Your task to perform on an android device: Go to settings Image 0: 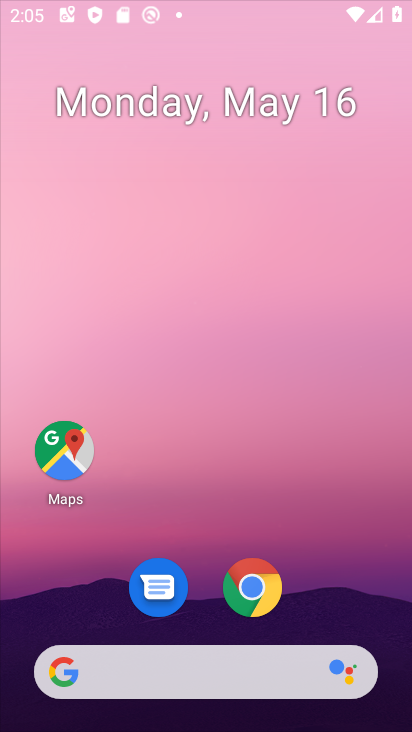
Step 0: drag from (278, 527) to (130, 151)
Your task to perform on an android device: Go to settings Image 1: 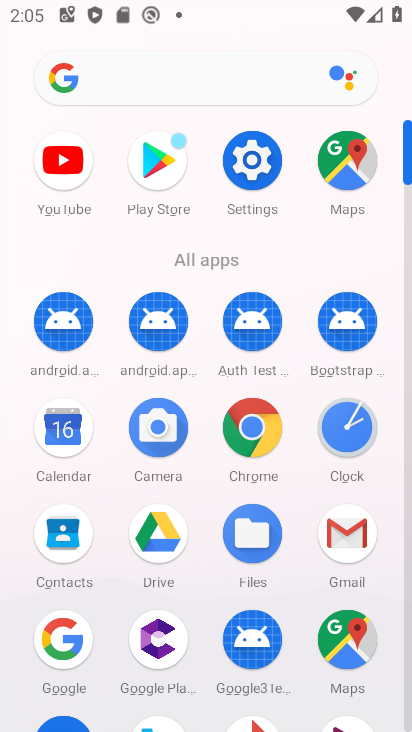
Step 1: click (255, 172)
Your task to perform on an android device: Go to settings Image 2: 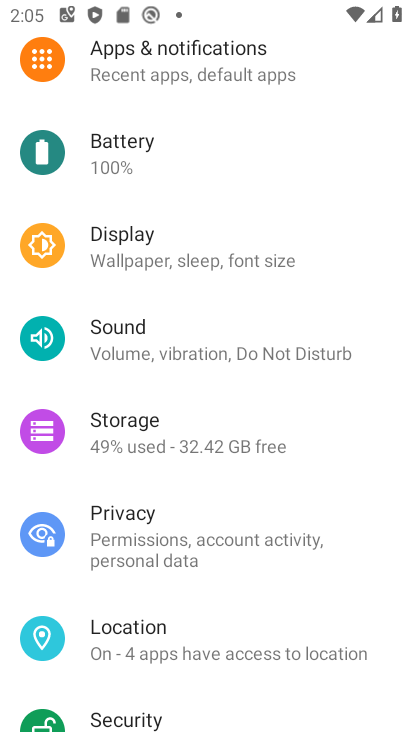
Step 2: drag from (187, 374) to (216, 422)
Your task to perform on an android device: Go to settings Image 3: 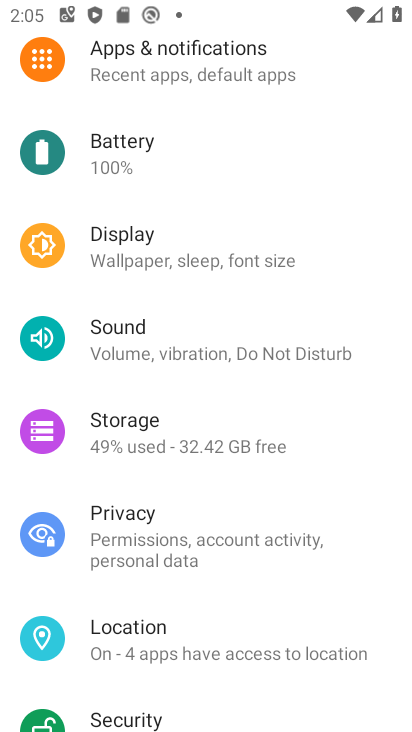
Step 3: drag from (131, 175) to (137, 516)
Your task to perform on an android device: Go to settings Image 4: 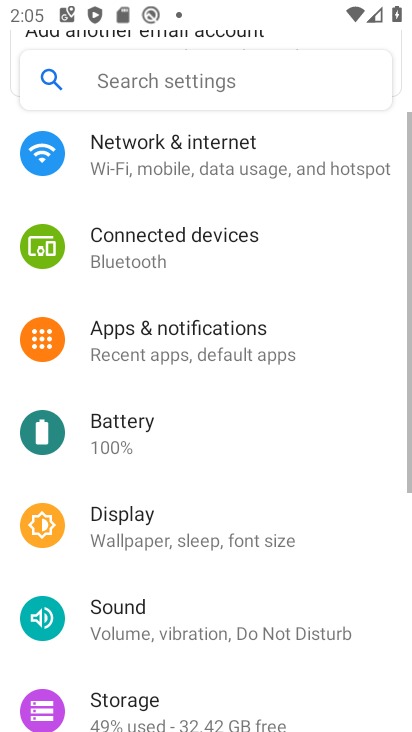
Step 4: drag from (140, 268) to (145, 543)
Your task to perform on an android device: Go to settings Image 5: 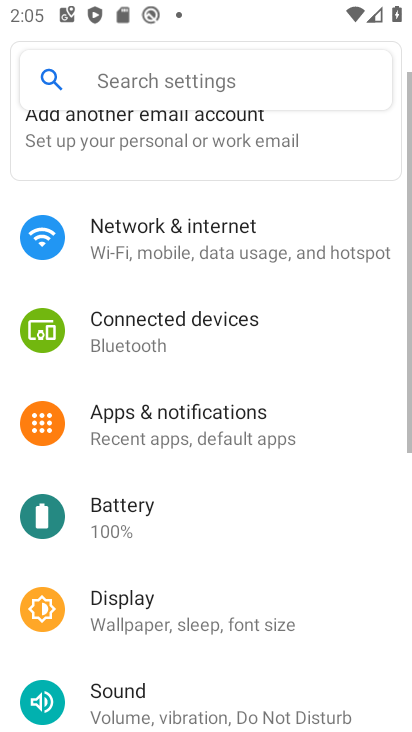
Step 5: drag from (194, 259) to (242, 669)
Your task to perform on an android device: Go to settings Image 6: 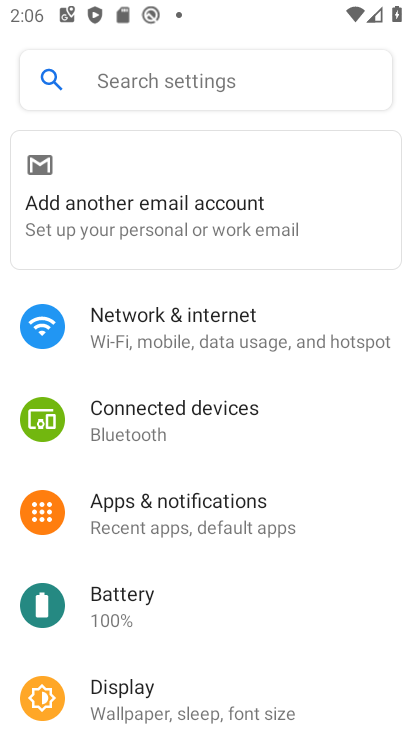
Step 6: click (186, 336)
Your task to perform on an android device: Go to settings Image 7: 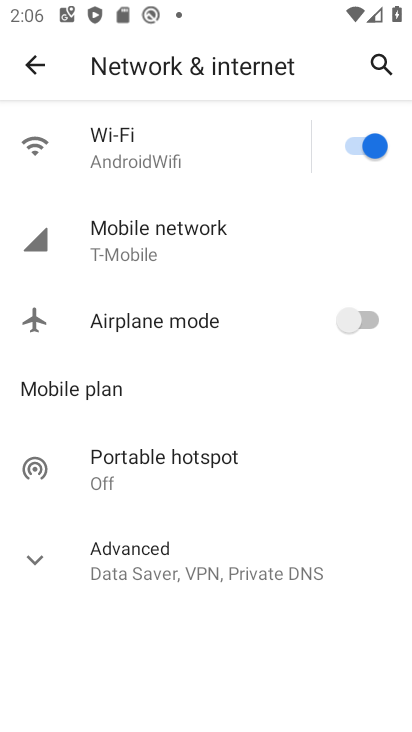
Step 7: click (26, 65)
Your task to perform on an android device: Go to settings Image 8: 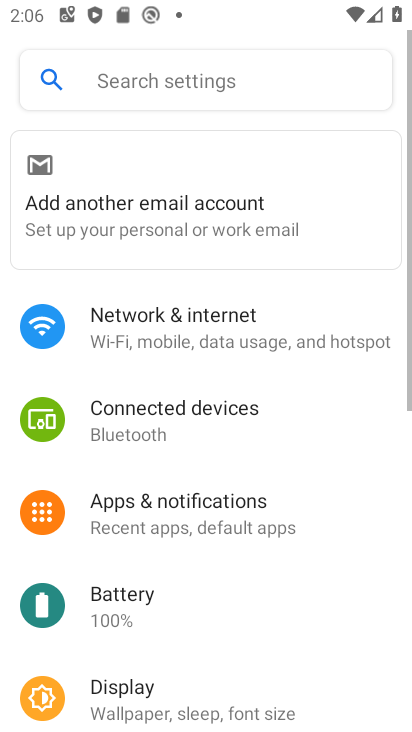
Step 8: task complete